Your task to perform on an android device: open app "Booking.com: Hotels and more" (install if not already installed) and go to login screen Image 0: 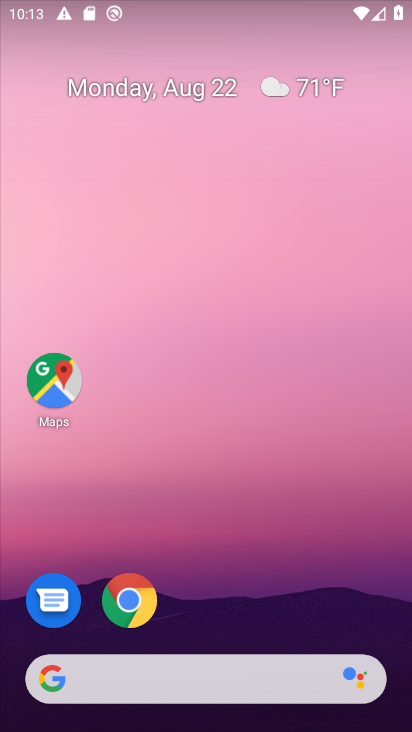
Step 0: drag from (215, 577) to (211, 83)
Your task to perform on an android device: open app "Booking.com: Hotels and more" (install if not already installed) and go to login screen Image 1: 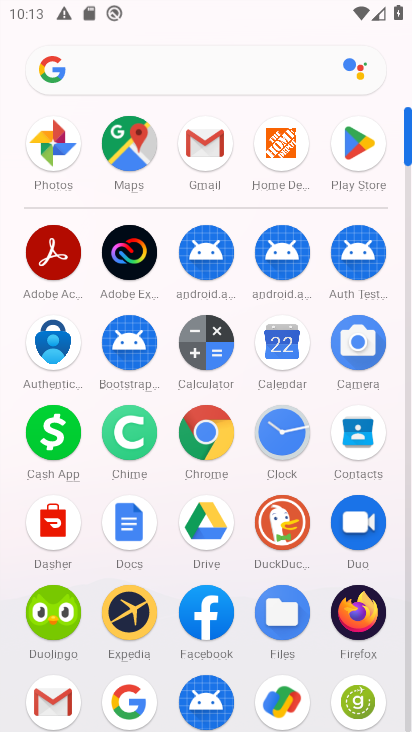
Step 1: click (345, 156)
Your task to perform on an android device: open app "Booking.com: Hotels and more" (install if not already installed) and go to login screen Image 2: 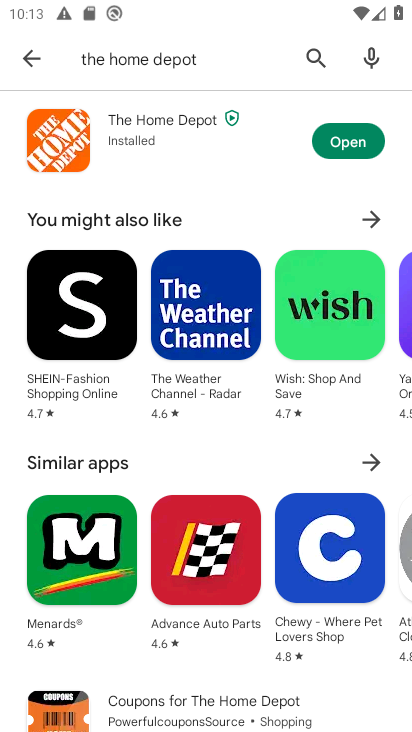
Step 2: click (311, 61)
Your task to perform on an android device: open app "Booking.com: Hotels and more" (install if not already installed) and go to login screen Image 3: 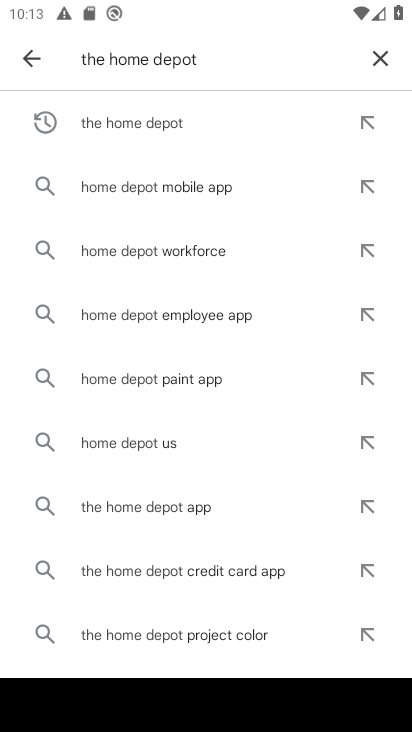
Step 3: click (383, 59)
Your task to perform on an android device: open app "Booking.com: Hotels and more" (install if not already installed) and go to login screen Image 4: 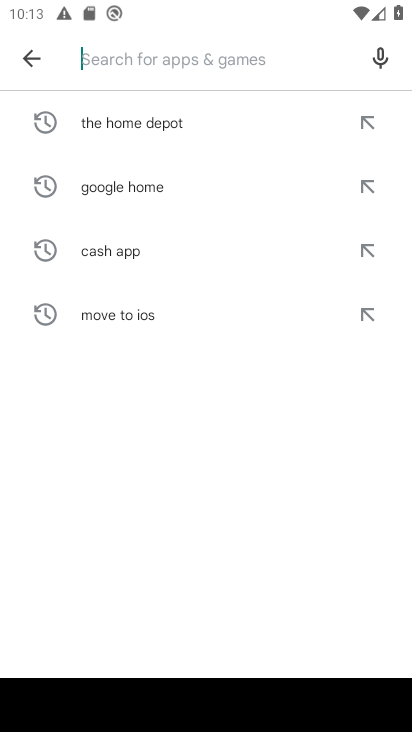
Step 4: type "Booking.com: Hotels and more"
Your task to perform on an android device: open app "Booking.com: Hotels and more" (install if not already installed) and go to login screen Image 5: 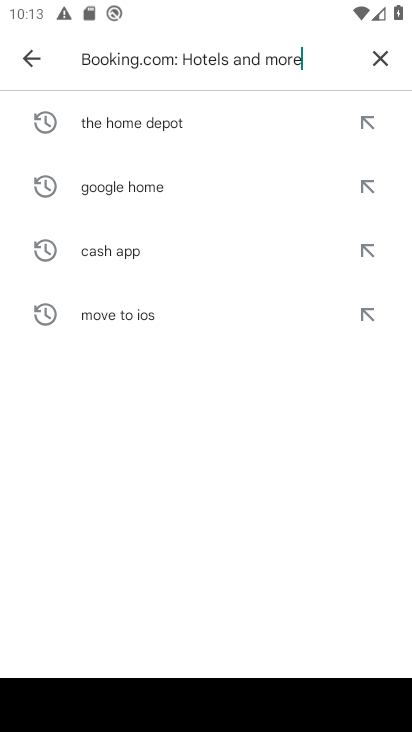
Step 5: type ""
Your task to perform on an android device: open app "Booking.com: Hotels and more" (install if not already installed) and go to login screen Image 6: 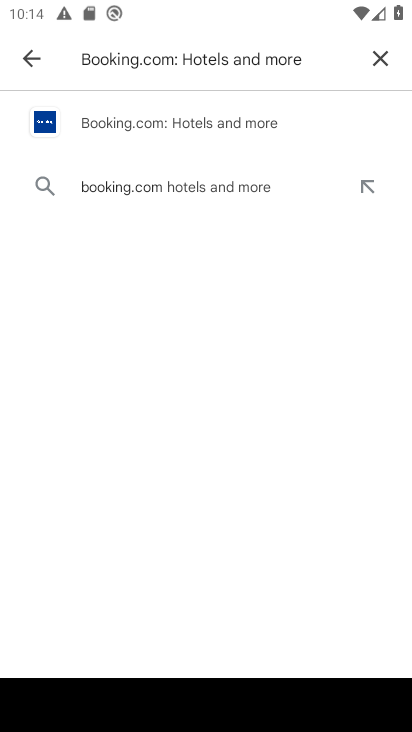
Step 6: click (154, 125)
Your task to perform on an android device: open app "Booking.com: Hotels and more" (install if not already installed) and go to login screen Image 7: 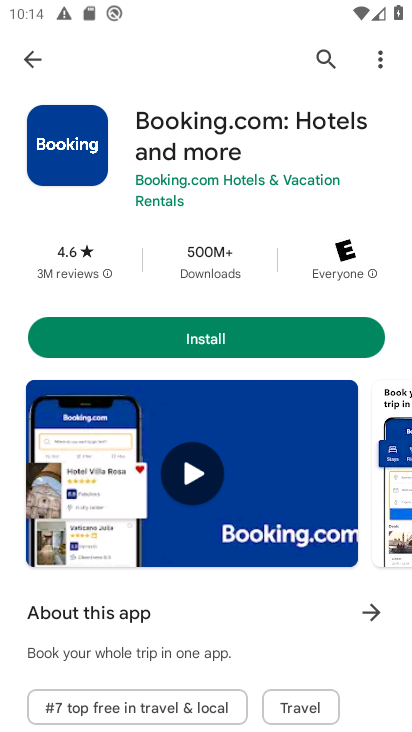
Step 7: click (292, 337)
Your task to perform on an android device: open app "Booking.com: Hotels and more" (install if not already installed) and go to login screen Image 8: 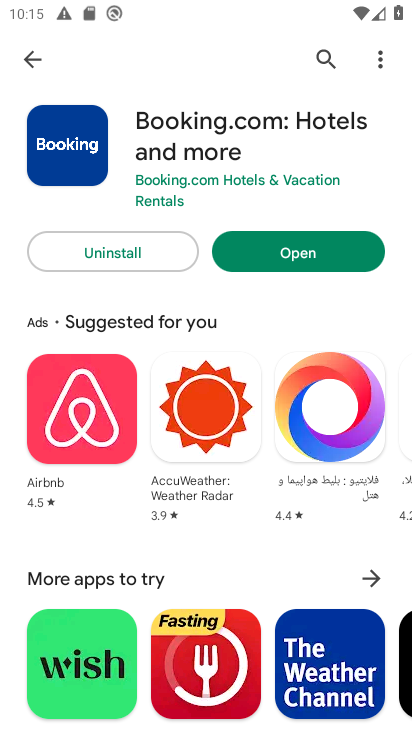
Step 8: click (349, 241)
Your task to perform on an android device: open app "Booking.com: Hotels and more" (install if not already installed) and go to login screen Image 9: 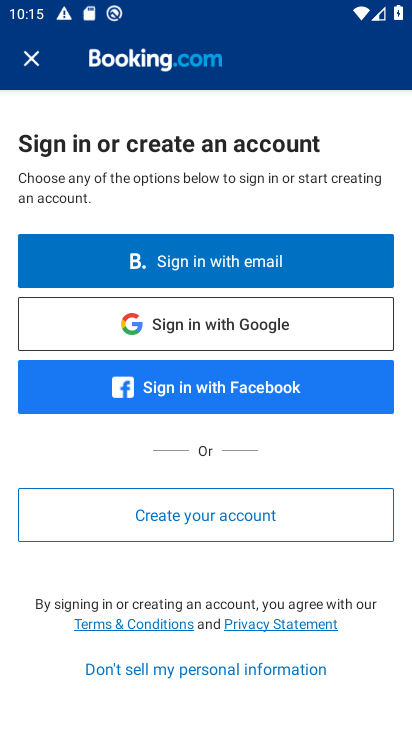
Step 9: task complete